Your task to perform on an android device: Open the web browser Image 0: 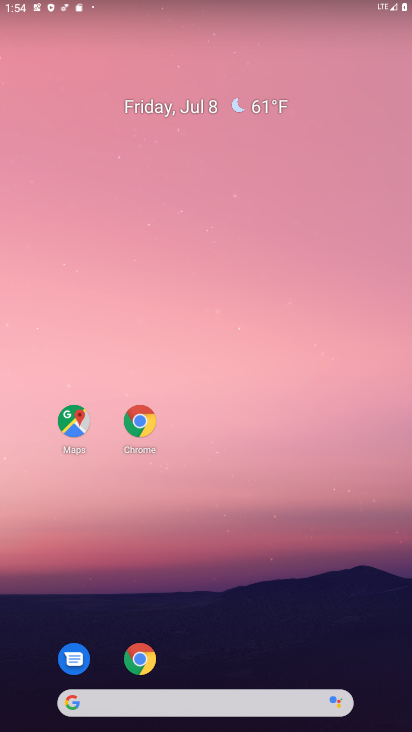
Step 0: drag from (217, 686) to (200, 127)
Your task to perform on an android device: Open the web browser Image 1: 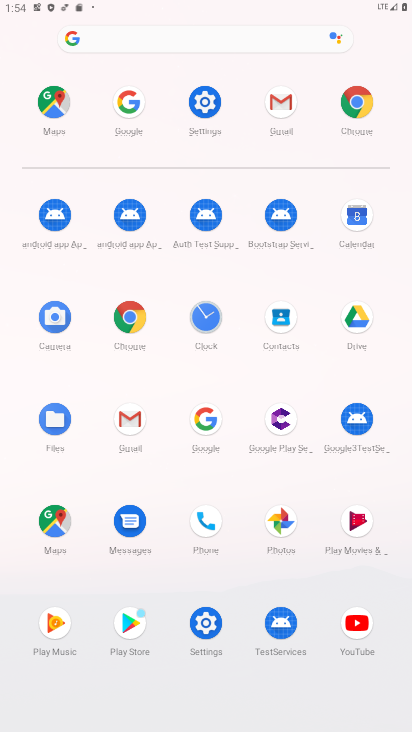
Step 1: click (204, 418)
Your task to perform on an android device: Open the web browser Image 2: 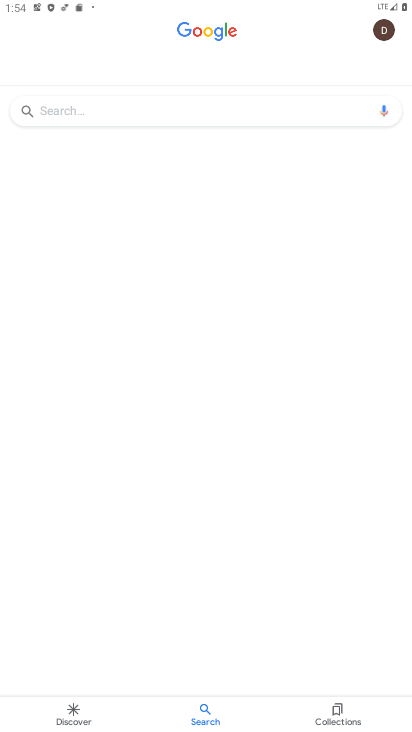
Step 2: click (207, 121)
Your task to perform on an android device: Open the web browser Image 3: 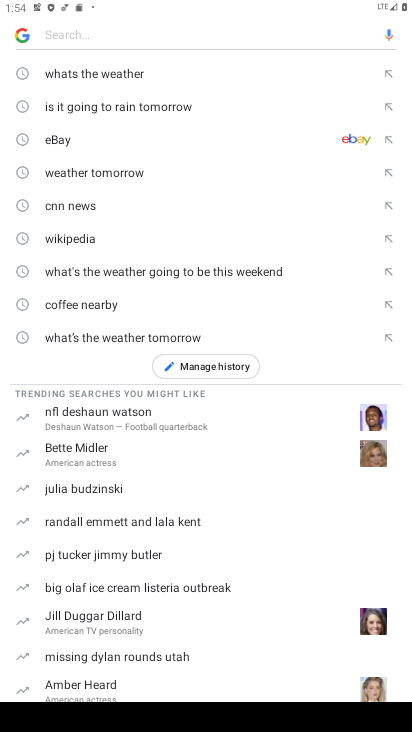
Step 3: task complete